Your task to perform on an android device: install app "Adobe Express: Graphic Design" Image 0: 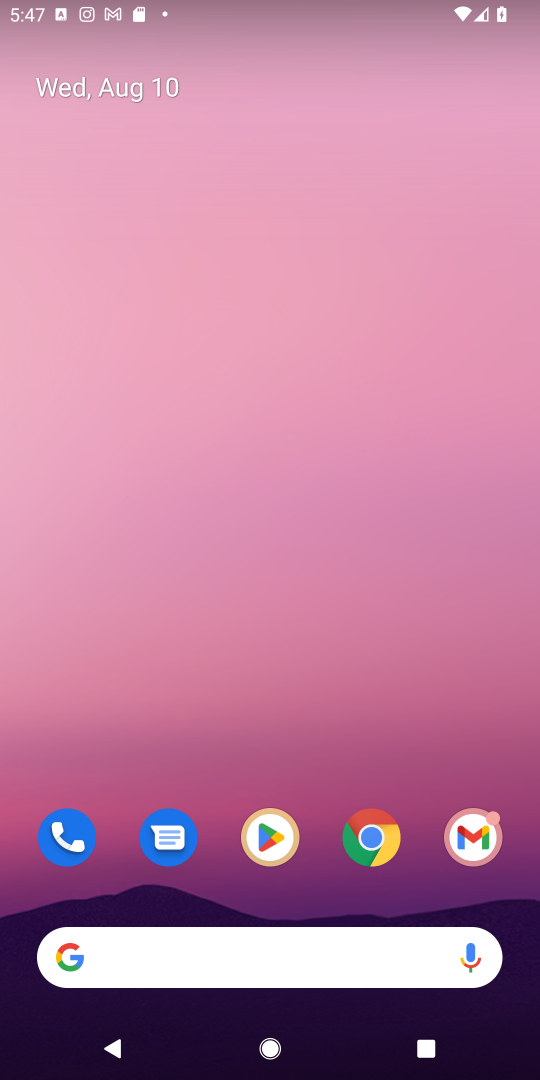
Step 0: press home button
Your task to perform on an android device: install app "Adobe Express: Graphic Design" Image 1: 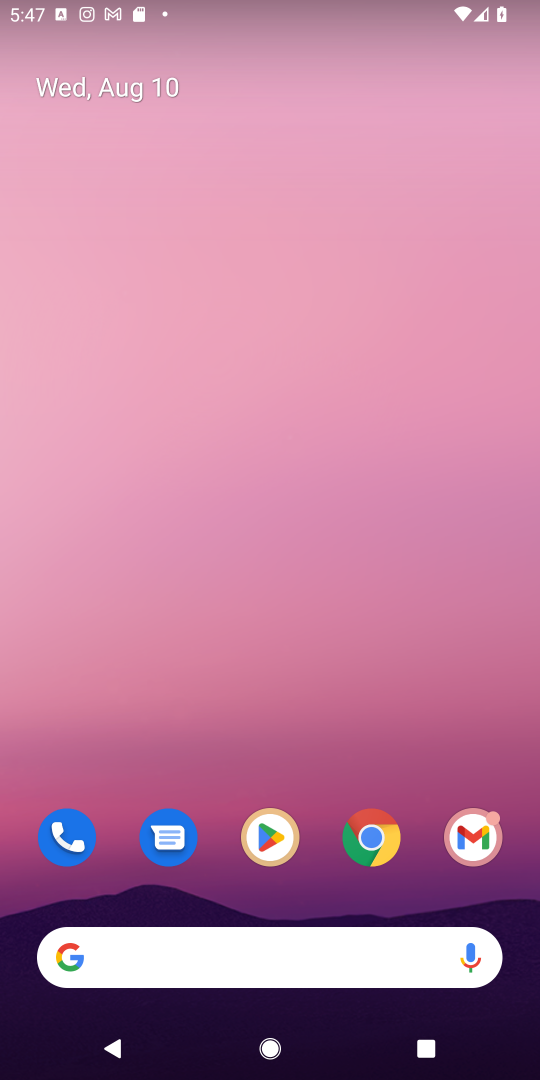
Step 1: click (271, 840)
Your task to perform on an android device: install app "Adobe Express: Graphic Design" Image 2: 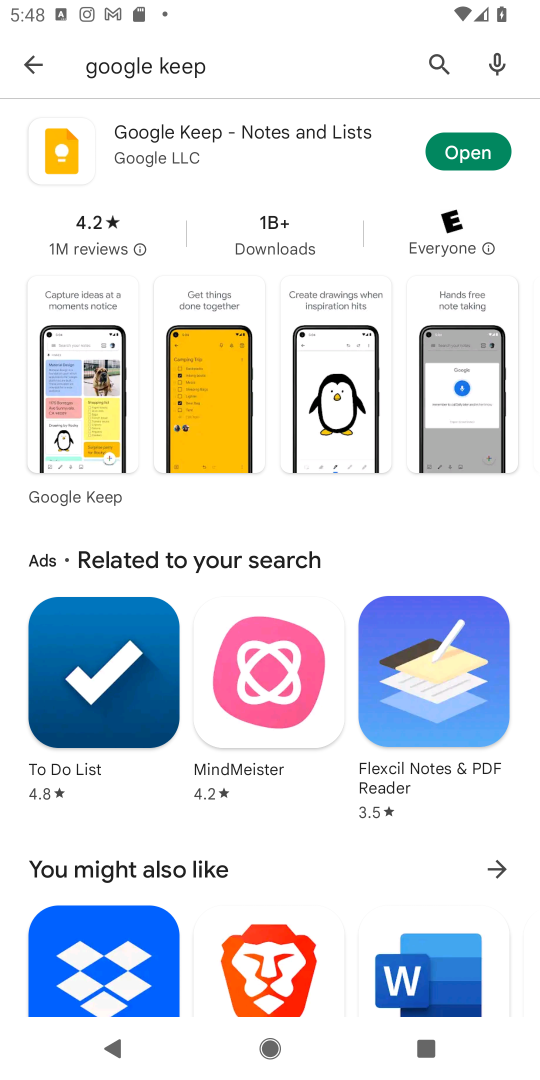
Step 2: click (425, 50)
Your task to perform on an android device: install app "Adobe Express: Graphic Design" Image 3: 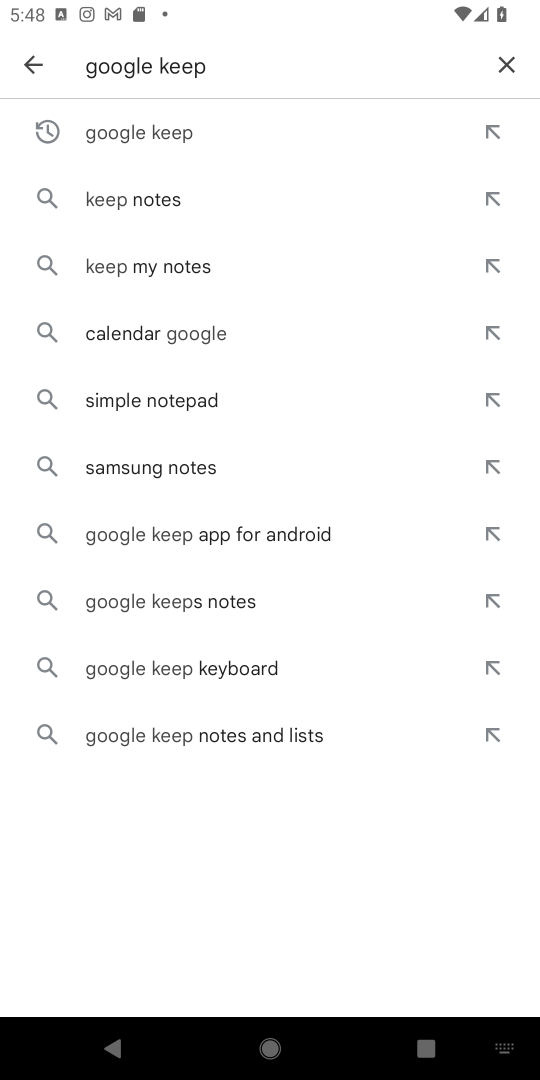
Step 3: click (505, 64)
Your task to perform on an android device: install app "Adobe Express: Graphic Design" Image 4: 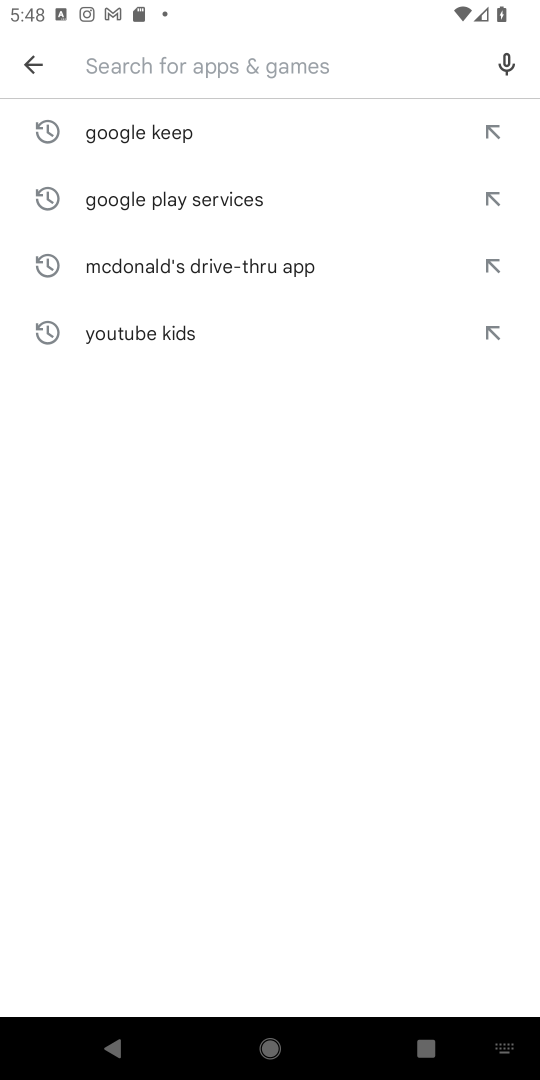
Step 4: type "Adobe Express: Graphic Design"
Your task to perform on an android device: install app "Adobe Express: Graphic Design" Image 5: 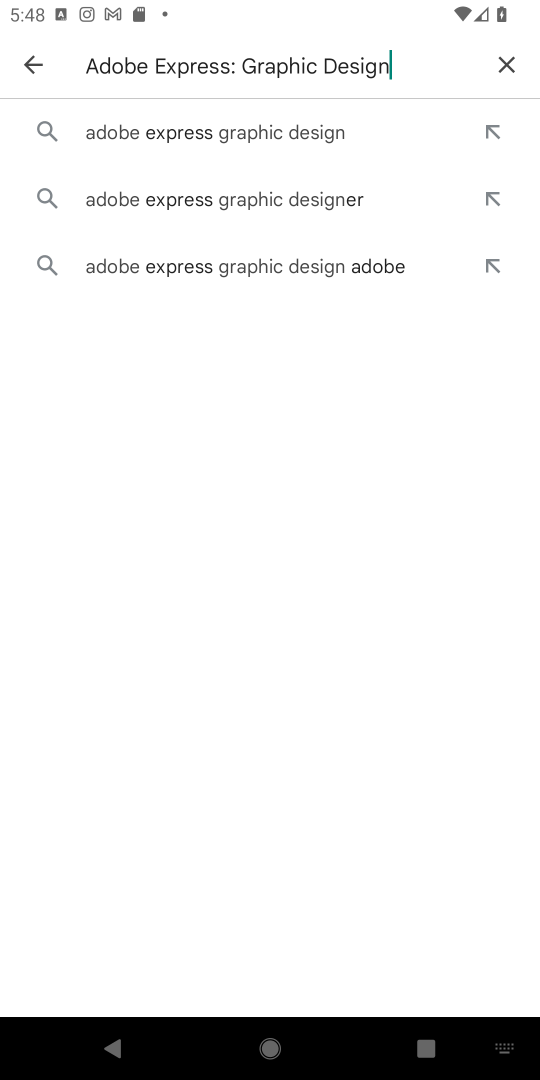
Step 5: click (295, 121)
Your task to perform on an android device: install app "Adobe Express: Graphic Design" Image 6: 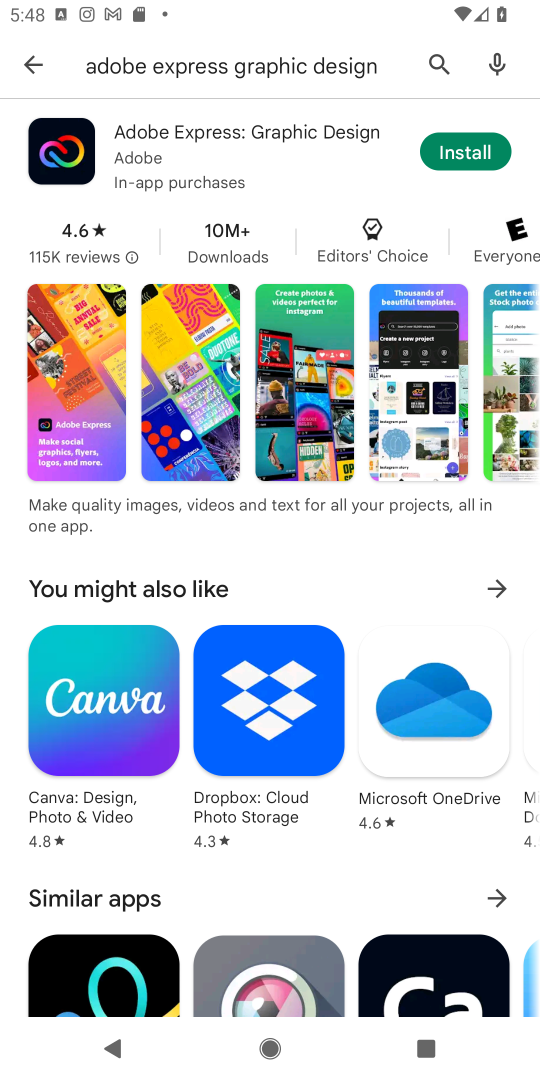
Step 6: click (487, 155)
Your task to perform on an android device: install app "Adobe Express: Graphic Design" Image 7: 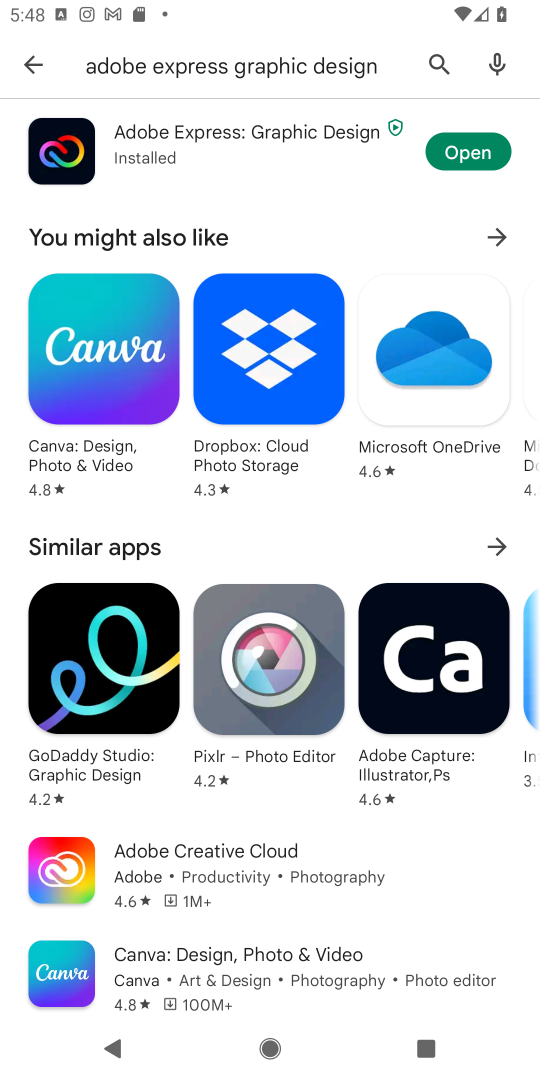
Step 7: task complete